Your task to perform on an android device: What is the news today? Image 0: 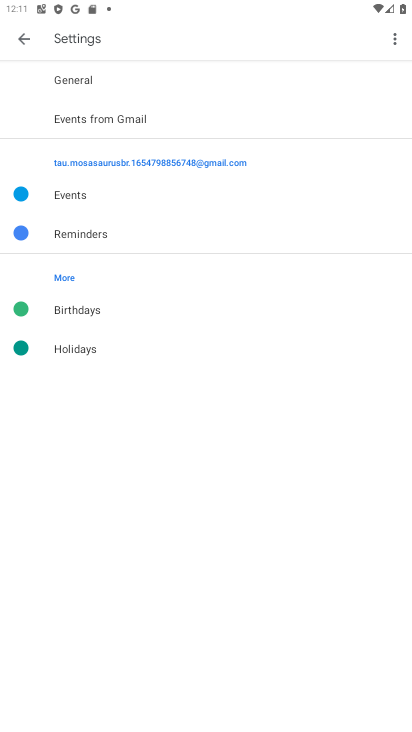
Step 0: press home button
Your task to perform on an android device: What is the news today? Image 1: 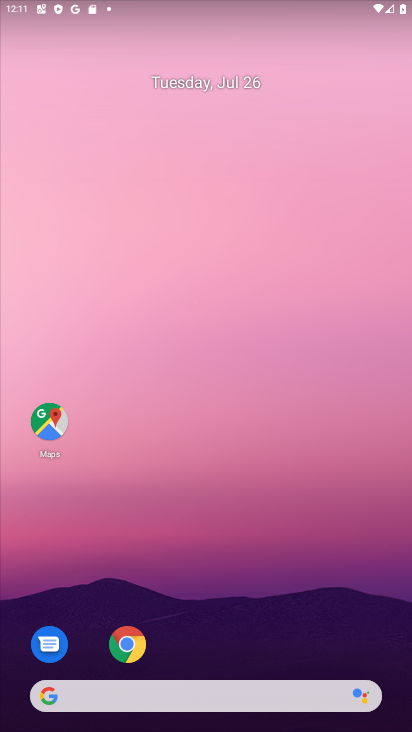
Step 1: click (158, 691)
Your task to perform on an android device: What is the news today? Image 2: 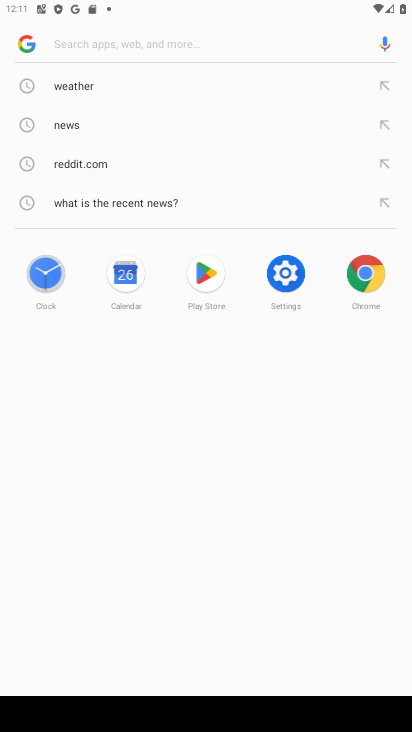
Step 2: click (66, 128)
Your task to perform on an android device: What is the news today? Image 3: 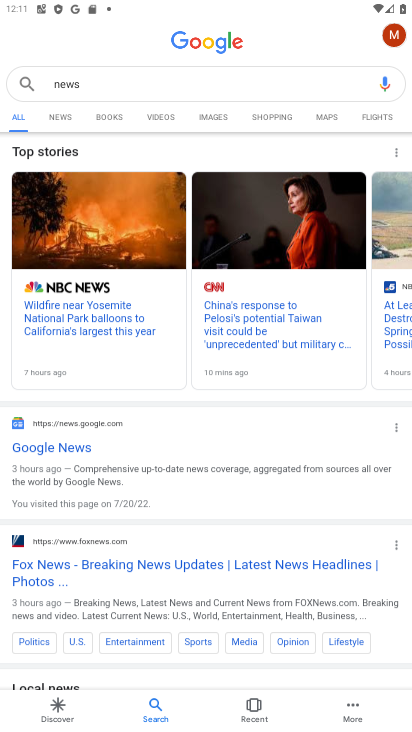
Step 3: click (252, 311)
Your task to perform on an android device: What is the news today? Image 4: 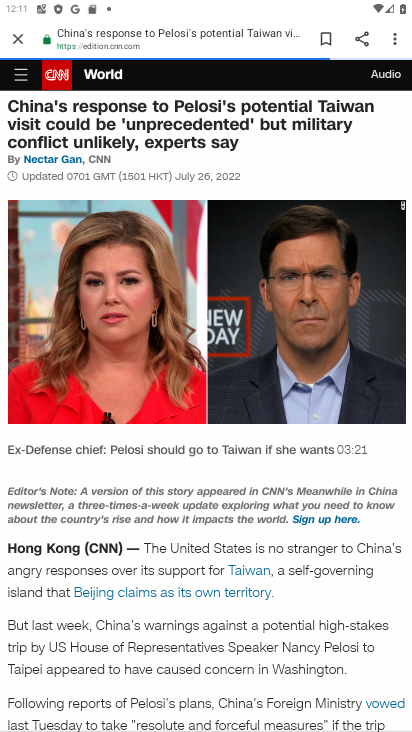
Step 4: task complete